Your task to perform on an android device: find which apps use the phone's location Image 0: 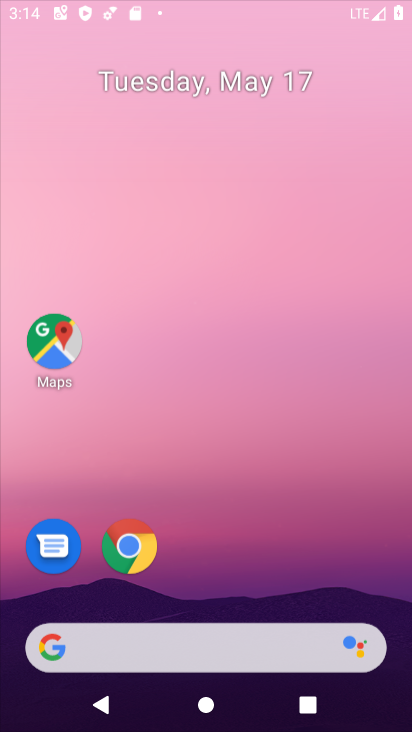
Step 0: press home button
Your task to perform on an android device: find which apps use the phone's location Image 1: 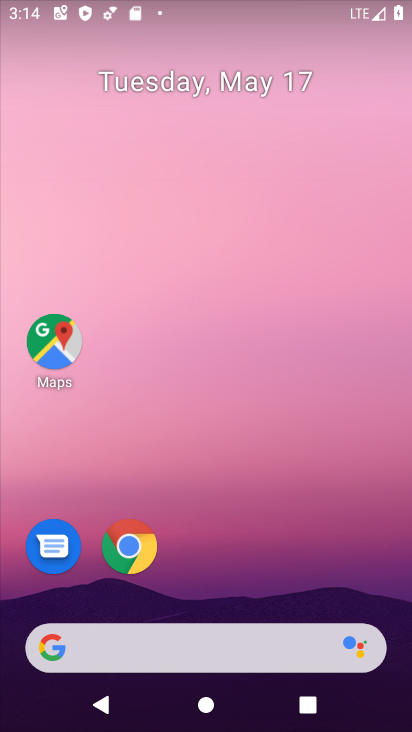
Step 1: drag from (266, 598) to (315, 47)
Your task to perform on an android device: find which apps use the phone's location Image 2: 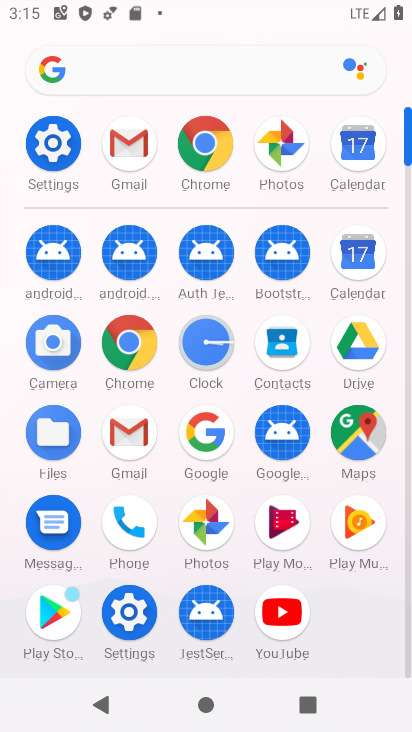
Step 2: click (135, 511)
Your task to perform on an android device: find which apps use the phone's location Image 3: 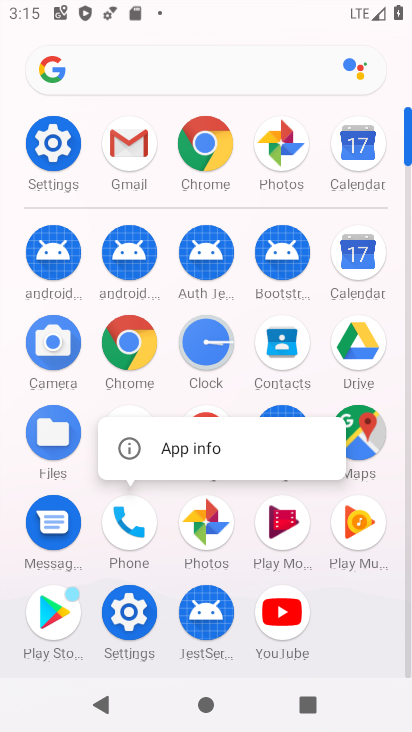
Step 3: click (139, 462)
Your task to perform on an android device: find which apps use the phone's location Image 4: 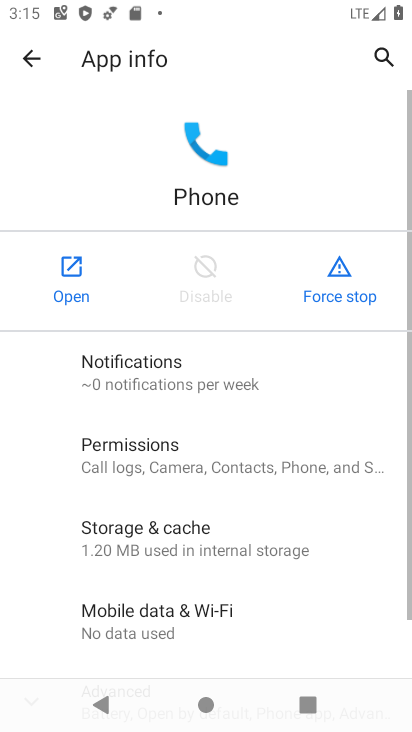
Step 4: click (139, 462)
Your task to perform on an android device: find which apps use the phone's location Image 5: 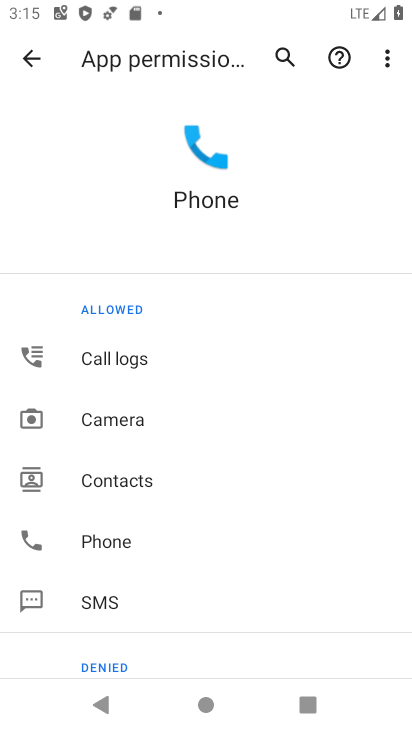
Step 5: drag from (121, 629) to (216, 254)
Your task to perform on an android device: find which apps use the phone's location Image 6: 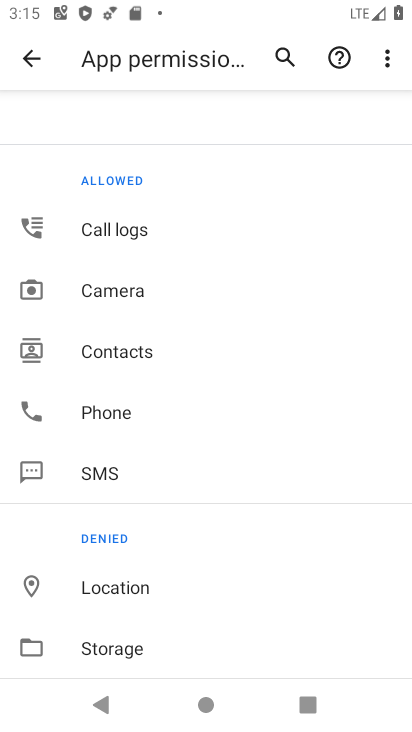
Step 6: click (177, 580)
Your task to perform on an android device: find which apps use the phone's location Image 7: 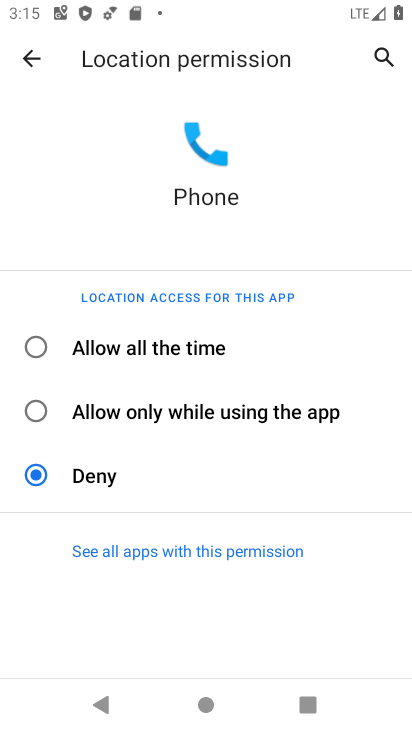
Step 7: click (165, 550)
Your task to perform on an android device: find which apps use the phone's location Image 8: 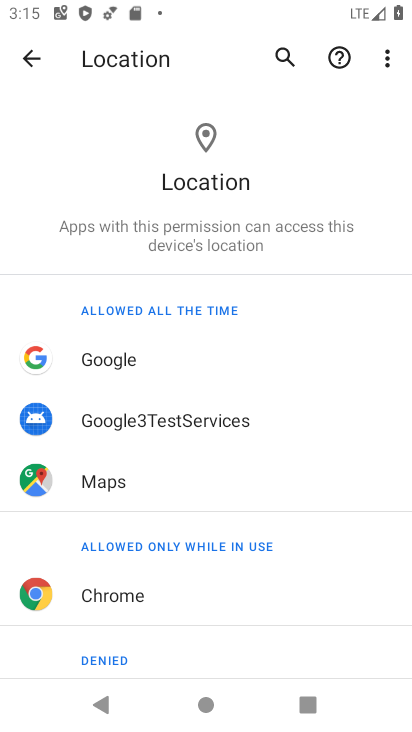
Step 8: task complete